Your task to perform on an android device: Go to Maps Image 0: 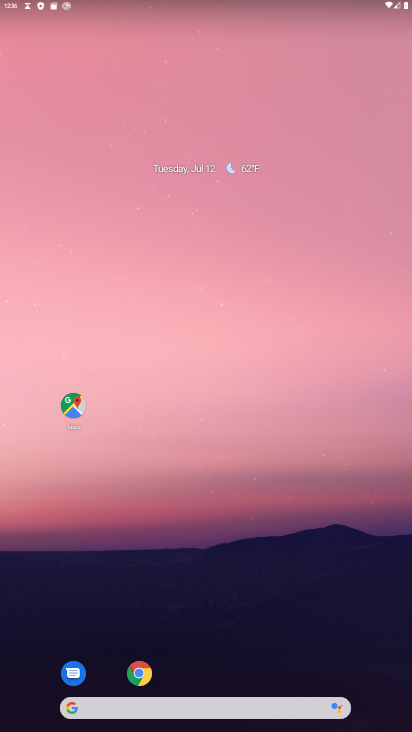
Step 0: click (70, 400)
Your task to perform on an android device: Go to Maps Image 1: 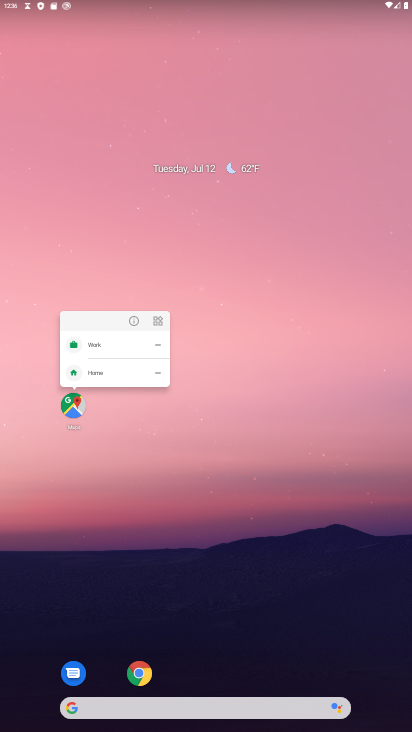
Step 1: click (72, 408)
Your task to perform on an android device: Go to Maps Image 2: 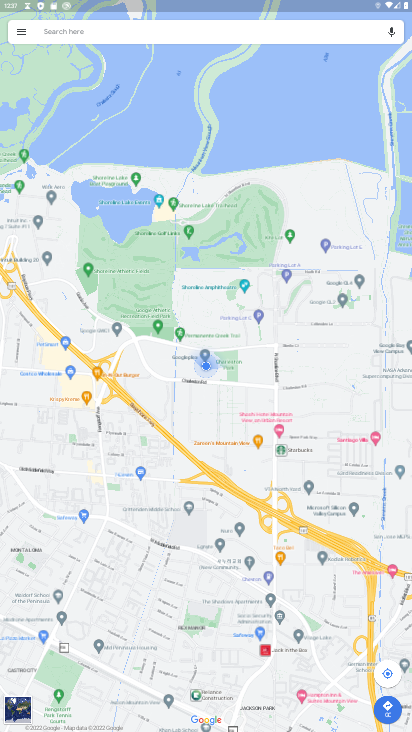
Step 2: task complete